Your task to perform on an android device: Go to wifi settings Image 0: 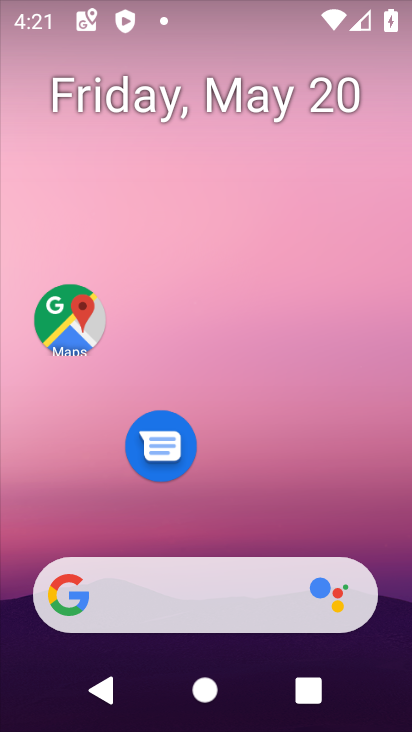
Step 0: drag from (247, 521) to (303, 55)
Your task to perform on an android device: Go to wifi settings Image 1: 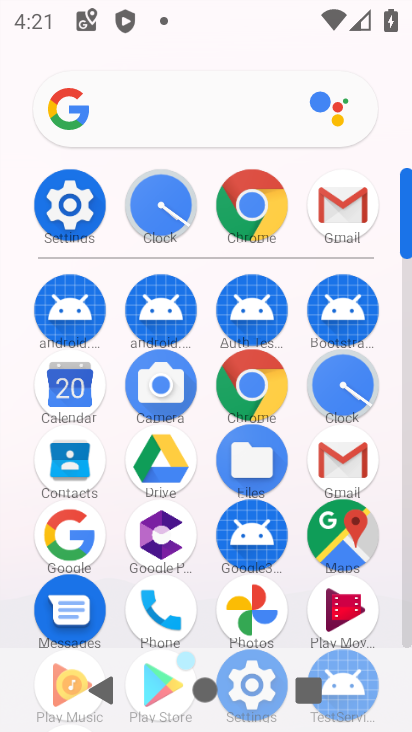
Step 1: click (88, 222)
Your task to perform on an android device: Go to wifi settings Image 2: 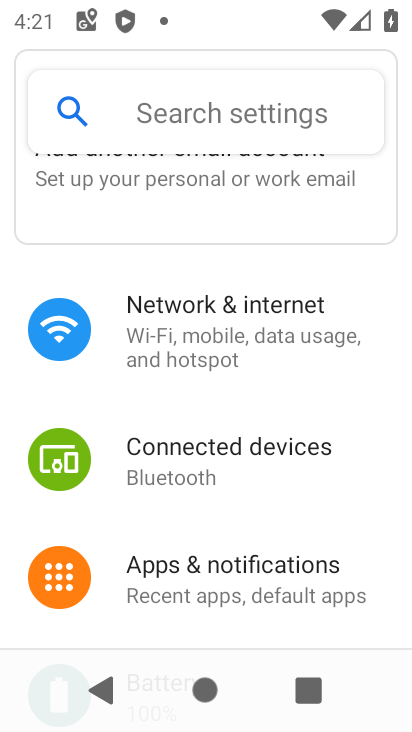
Step 2: click (235, 345)
Your task to perform on an android device: Go to wifi settings Image 3: 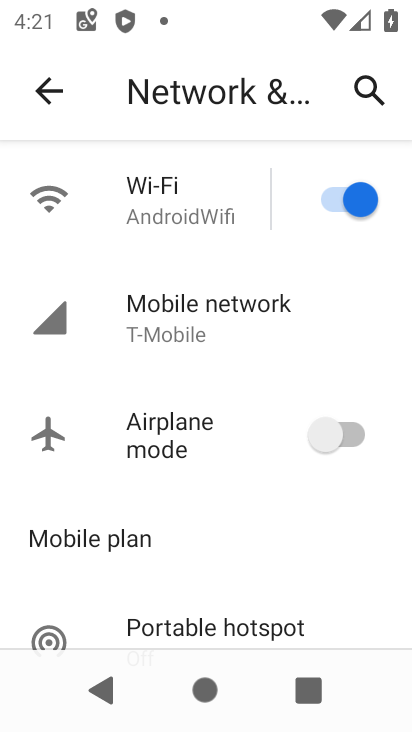
Step 3: click (192, 205)
Your task to perform on an android device: Go to wifi settings Image 4: 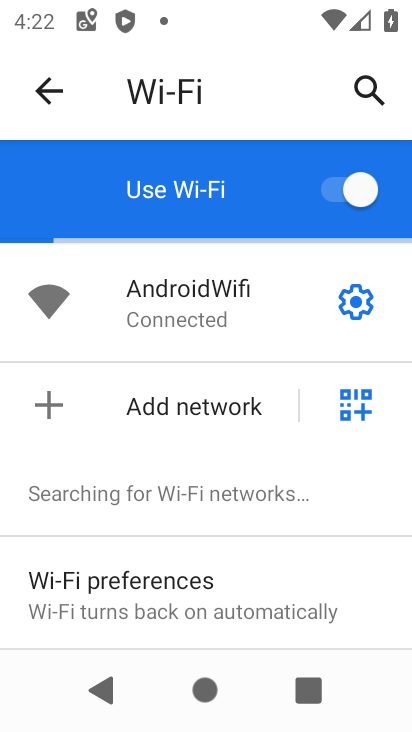
Step 4: task complete